Your task to perform on an android device: allow notifications from all sites in the chrome app Image 0: 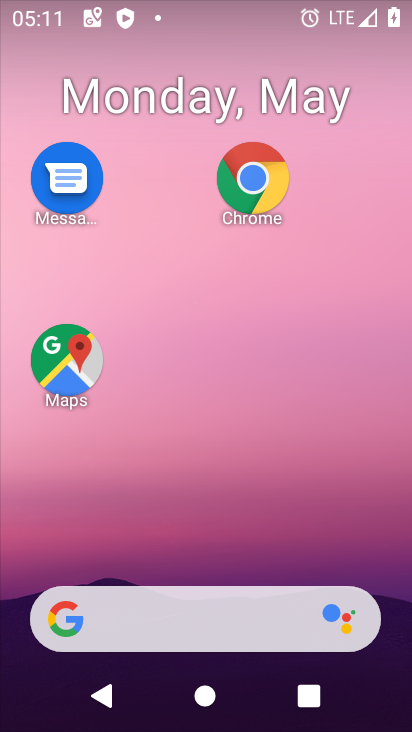
Step 0: drag from (224, 530) to (199, 4)
Your task to perform on an android device: allow notifications from all sites in the chrome app Image 1: 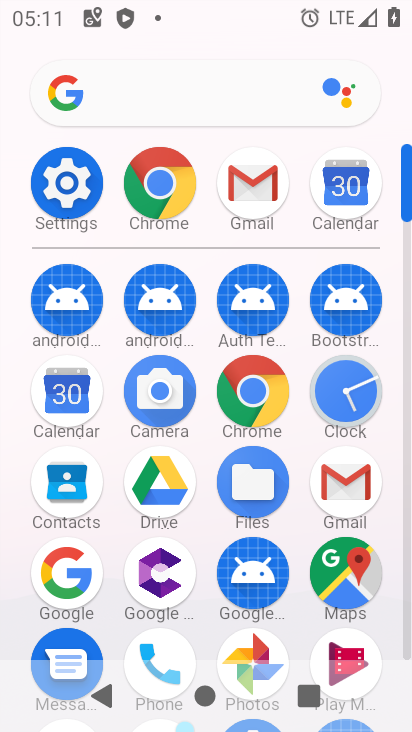
Step 1: click (141, 235)
Your task to perform on an android device: allow notifications from all sites in the chrome app Image 2: 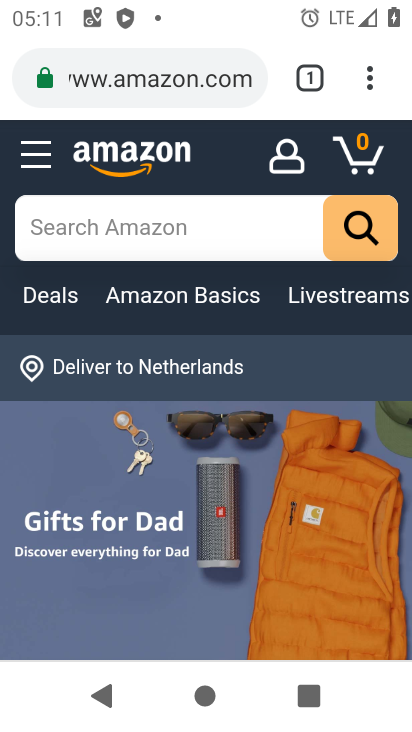
Step 2: click (370, 82)
Your task to perform on an android device: allow notifications from all sites in the chrome app Image 3: 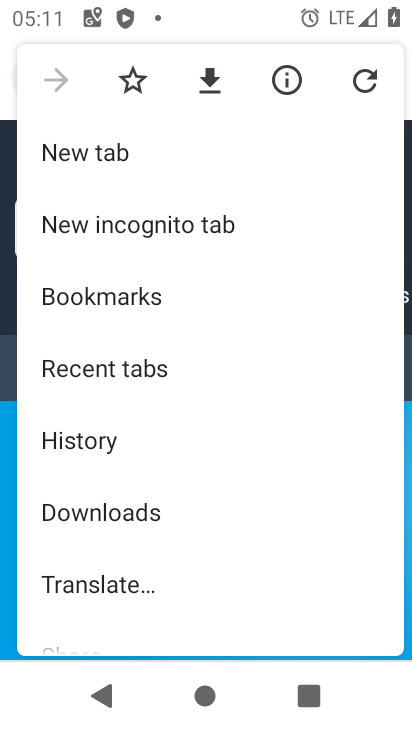
Step 3: drag from (101, 277) to (93, 73)
Your task to perform on an android device: allow notifications from all sites in the chrome app Image 4: 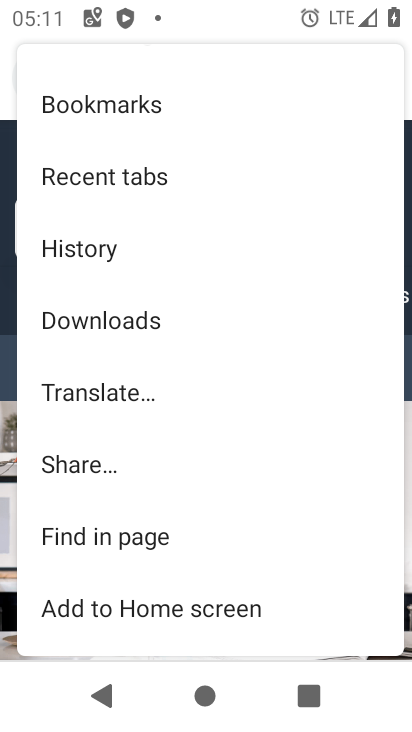
Step 4: drag from (111, 573) to (106, 257)
Your task to perform on an android device: allow notifications from all sites in the chrome app Image 5: 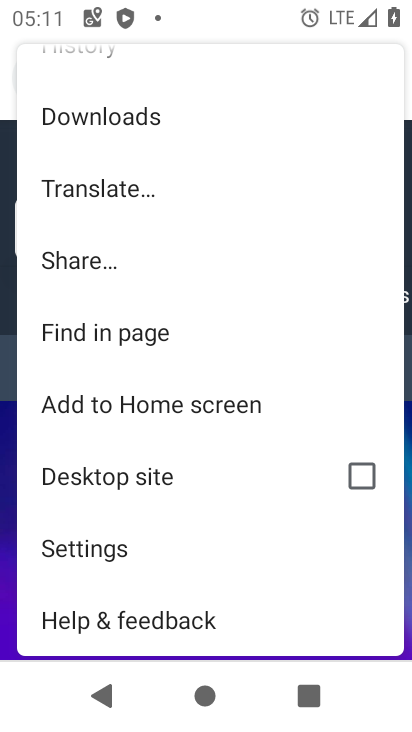
Step 5: click (105, 545)
Your task to perform on an android device: allow notifications from all sites in the chrome app Image 6: 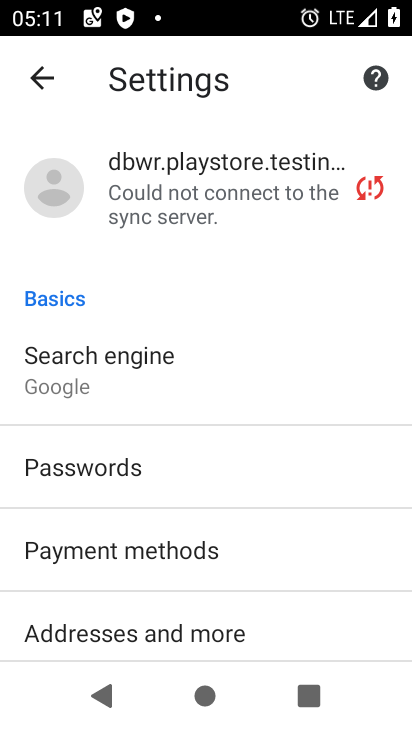
Step 6: drag from (67, 248) to (48, 41)
Your task to perform on an android device: allow notifications from all sites in the chrome app Image 7: 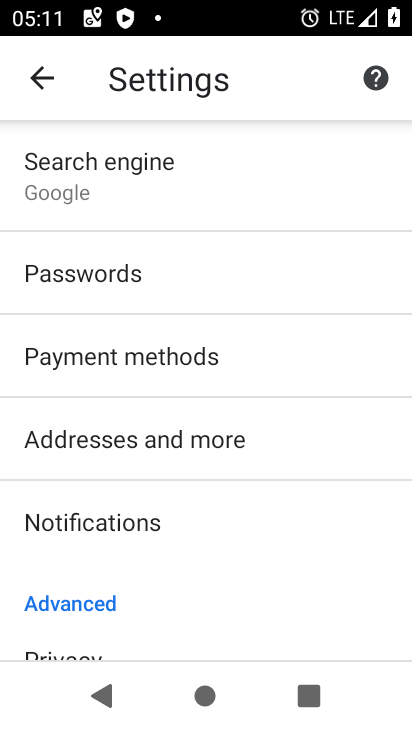
Step 7: drag from (145, 602) to (111, 99)
Your task to perform on an android device: allow notifications from all sites in the chrome app Image 8: 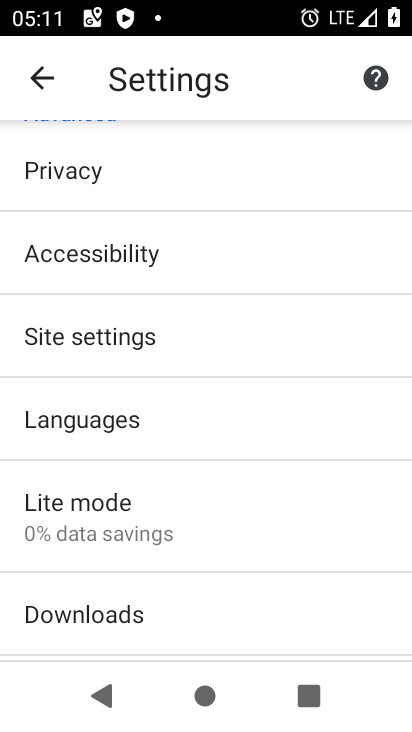
Step 8: click (121, 345)
Your task to perform on an android device: allow notifications from all sites in the chrome app Image 9: 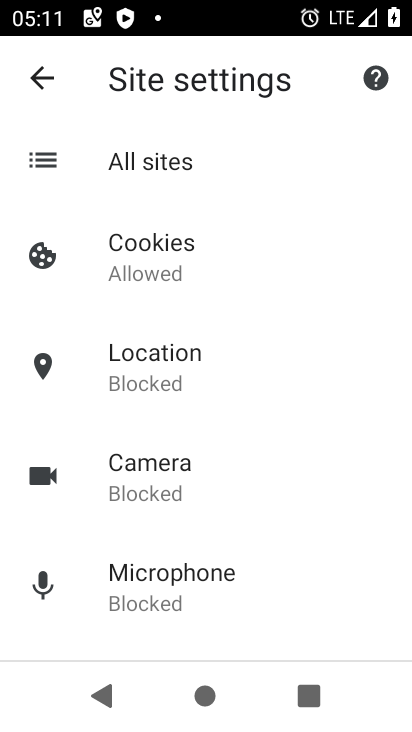
Step 9: click (129, 156)
Your task to perform on an android device: allow notifications from all sites in the chrome app Image 10: 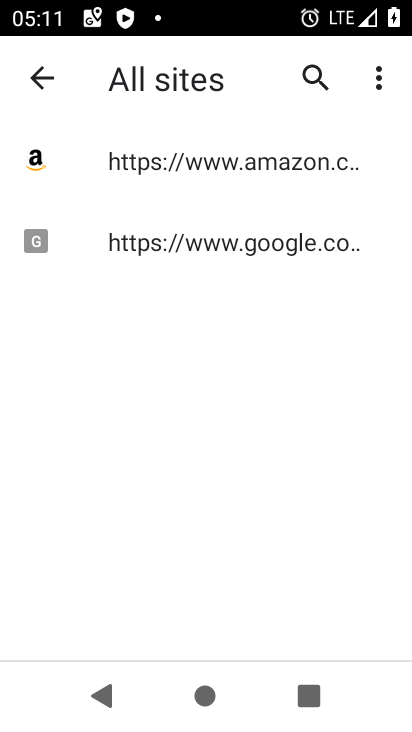
Step 10: click (155, 248)
Your task to perform on an android device: allow notifications from all sites in the chrome app Image 11: 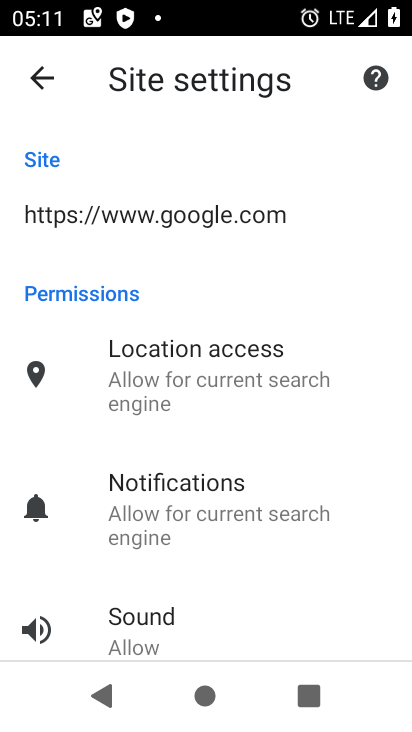
Step 11: click (160, 503)
Your task to perform on an android device: allow notifications from all sites in the chrome app Image 12: 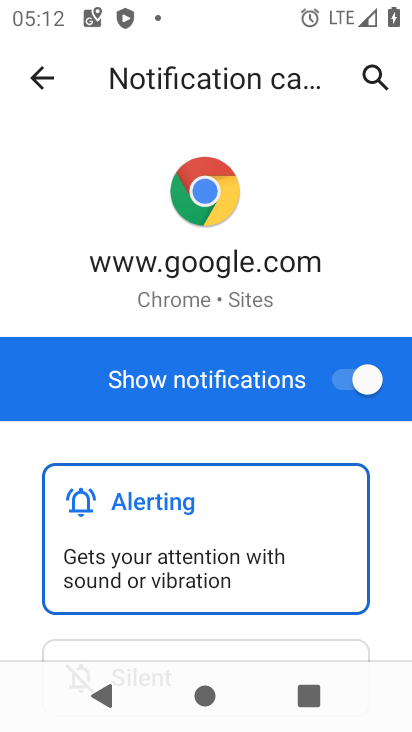
Step 12: click (322, 377)
Your task to perform on an android device: allow notifications from all sites in the chrome app Image 13: 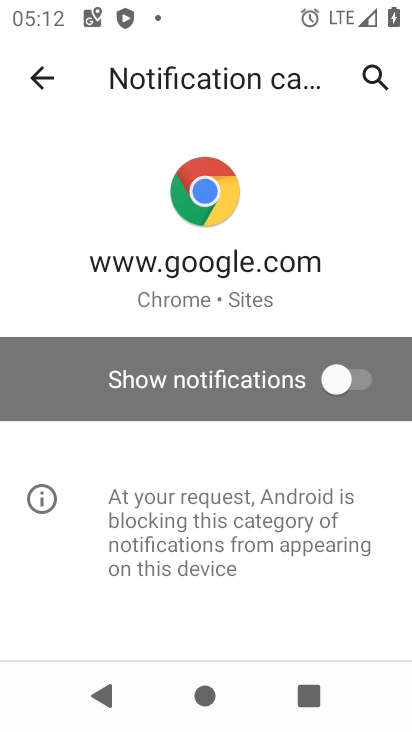
Step 13: task complete